Your task to perform on an android device: search for starred emails in the gmail app Image 0: 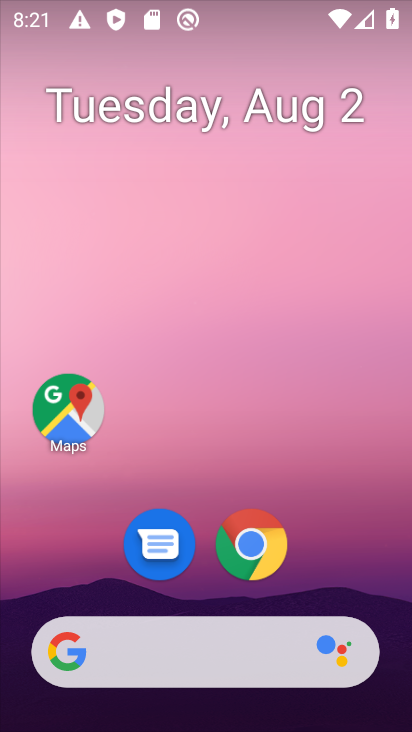
Step 0: drag from (201, 604) to (321, 161)
Your task to perform on an android device: search for starred emails in the gmail app Image 1: 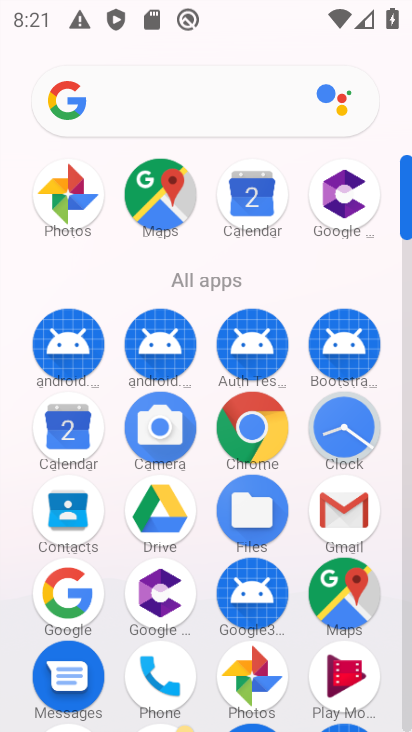
Step 1: click (344, 514)
Your task to perform on an android device: search for starred emails in the gmail app Image 2: 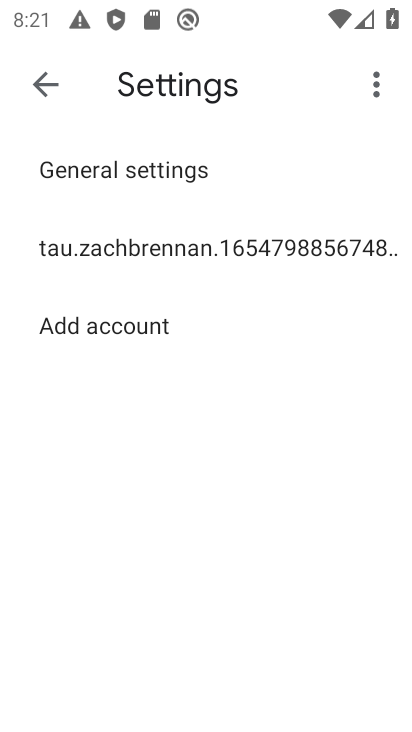
Step 2: click (42, 83)
Your task to perform on an android device: search for starred emails in the gmail app Image 3: 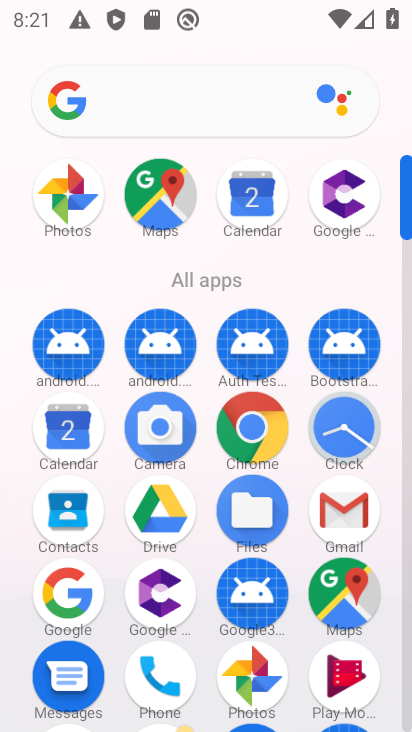
Step 3: click (359, 504)
Your task to perform on an android device: search for starred emails in the gmail app Image 4: 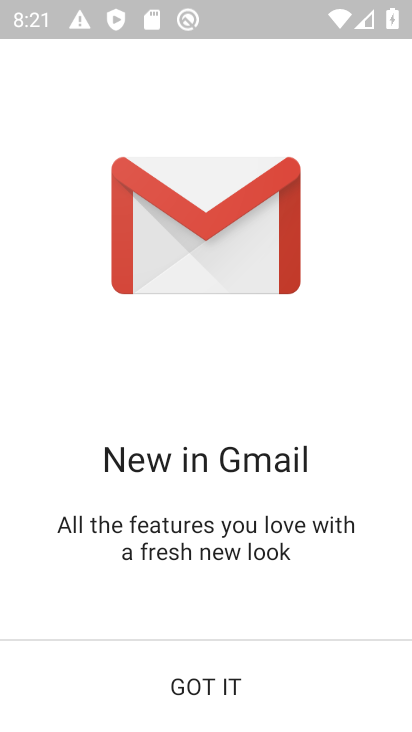
Step 4: click (206, 679)
Your task to perform on an android device: search for starred emails in the gmail app Image 5: 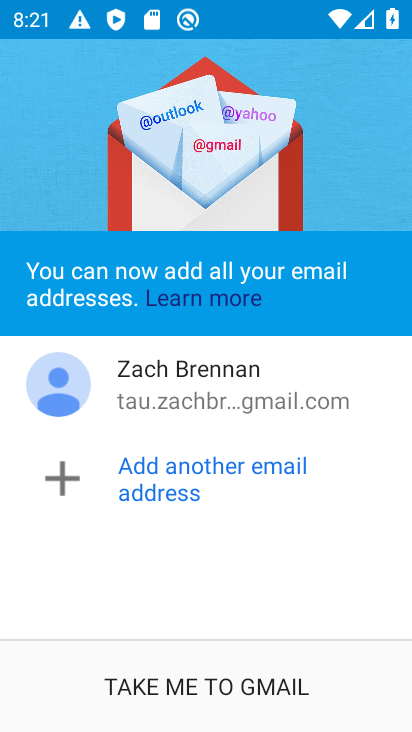
Step 5: click (206, 679)
Your task to perform on an android device: search for starred emails in the gmail app Image 6: 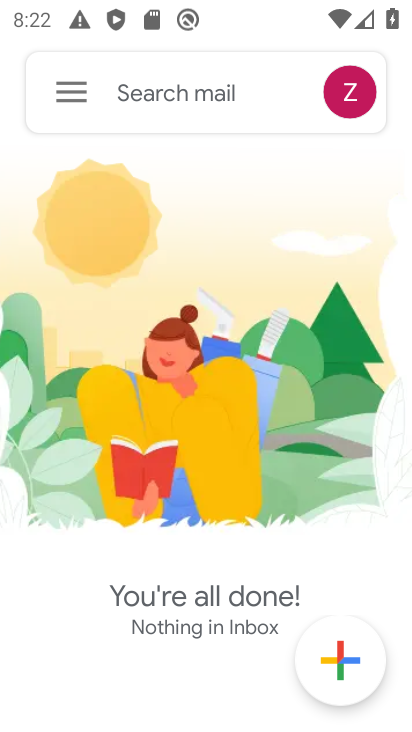
Step 6: click (61, 93)
Your task to perform on an android device: search for starred emails in the gmail app Image 7: 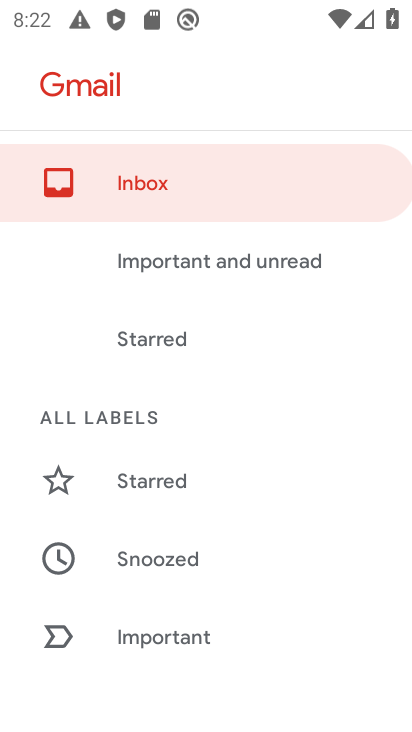
Step 7: click (163, 483)
Your task to perform on an android device: search for starred emails in the gmail app Image 8: 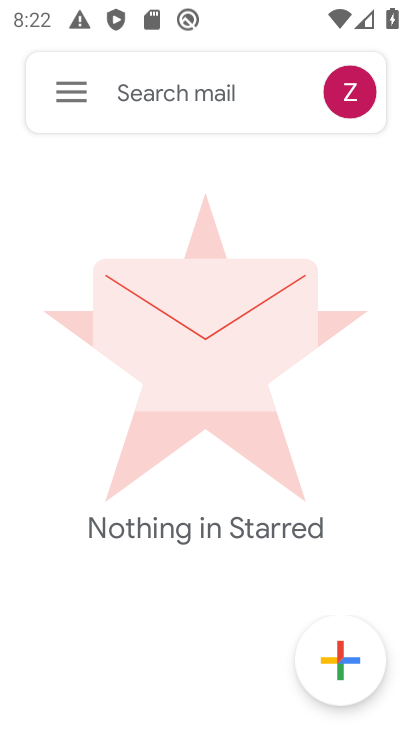
Step 8: task complete